Your task to perform on an android device: Search for sushi restaurants on Maps Image 0: 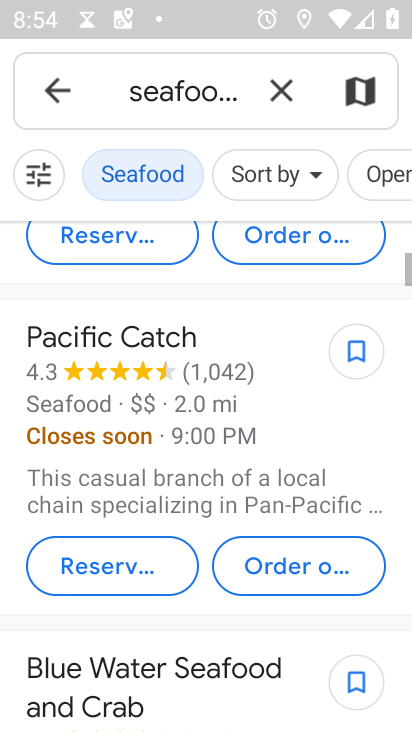
Step 0: press home button
Your task to perform on an android device: Search for sushi restaurants on Maps Image 1: 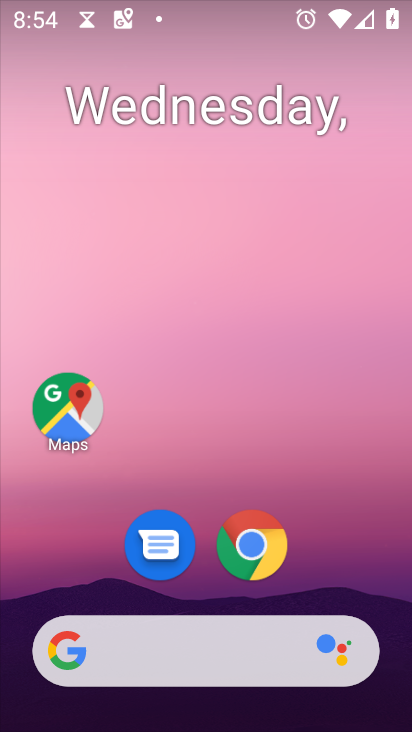
Step 1: click (72, 424)
Your task to perform on an android device: Search for sushi restaurants on Maps Image 2: 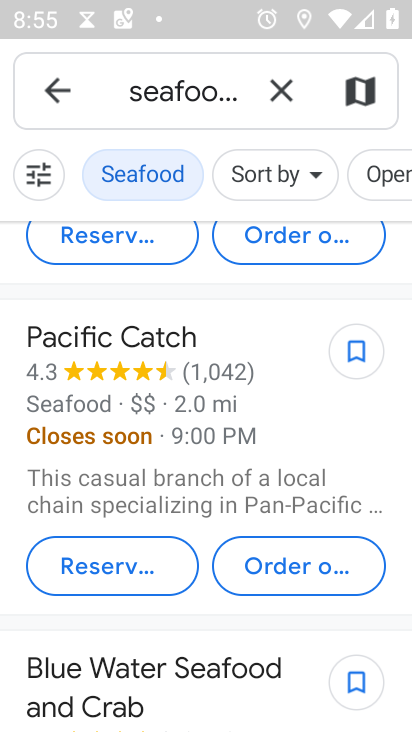
Step 2: click (280, 85)
Your task to perform on an android device: Search for sushi restaurants on Maps Image 3: 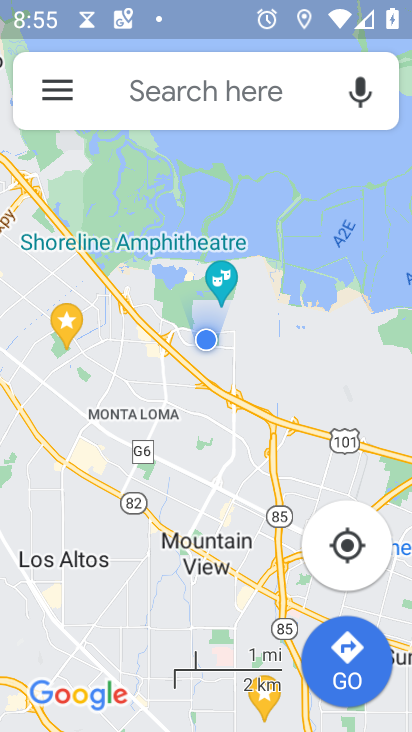
Step 3: click (162, 82)
Your task to perform on an android device: Search for sushi restaurants on Maps Image 4: 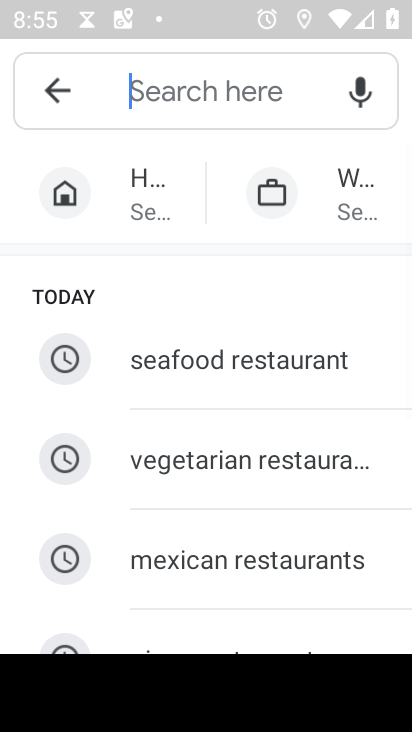
Step 4: drag from (196, 573) to (328, 165)
Your task to perform on an android device: Search for sushi restaurants on Maps Image 5: 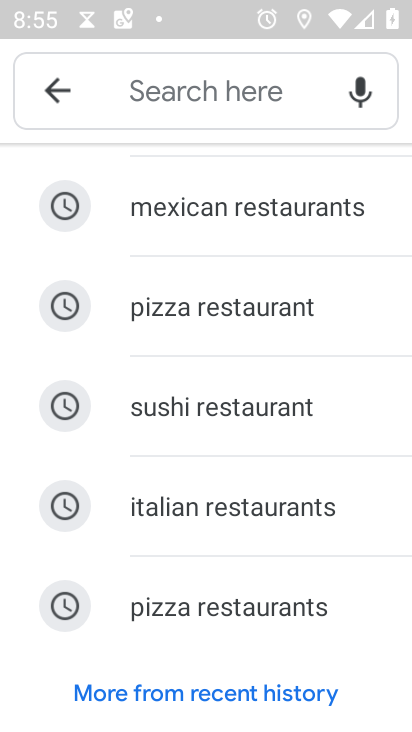
Step 5: click (207, 413)
Your task to perform on an android device: Search for sushi restaurants on Maps Image 6: 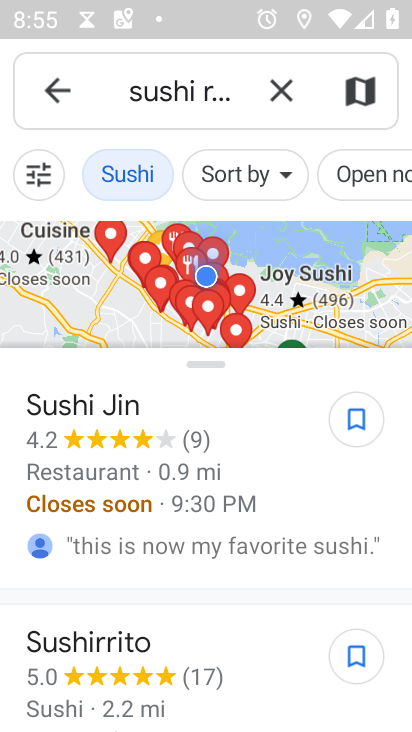
Step 6: task complete